Your task to perform on an android device: set the stopwatch Image 0: 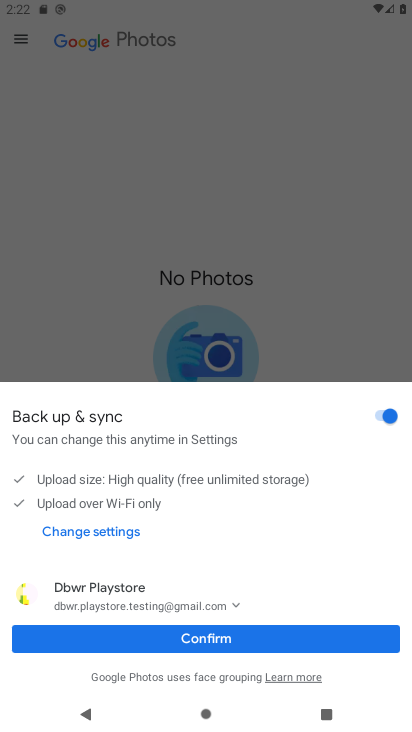
Step 0: press home button
Your task to perform on an android device: set the stopwatch Image 1: 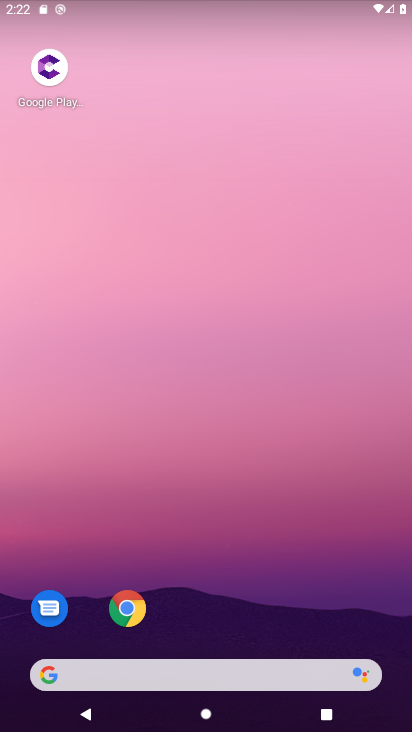
Step 1: drag from (330, 585) to (255, 6)
Your task to perform on an android device: set the stopwatch Image 2: 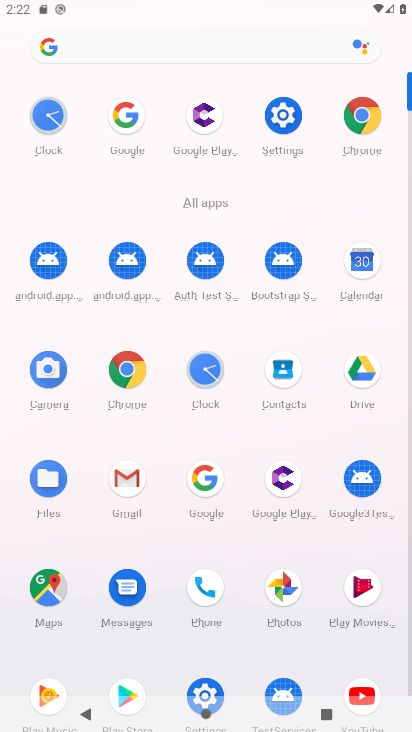
Step 2: click (202, 371)
Your task to perform on an android device: set the stopwatch Image 3: 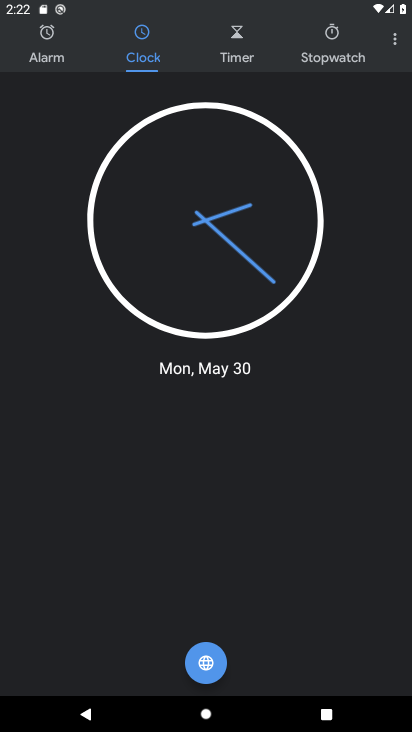
Step 3: click (335, 40)
Your task to perform on an android device: set the stopwatch Image 4: 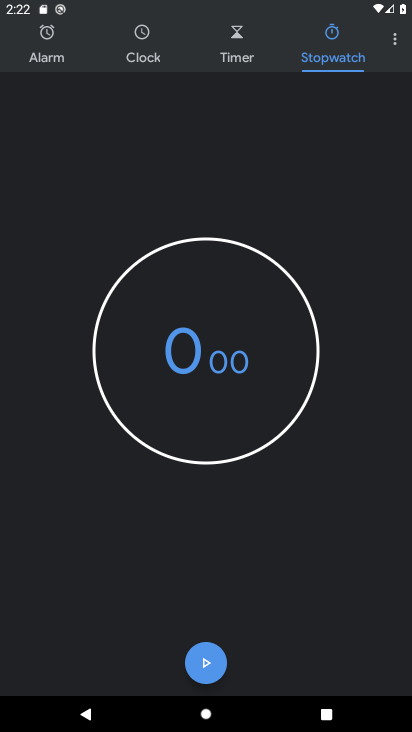
Step 4: task complete